Your task to perform on an android device: change the clock display to show seconds Image 0: 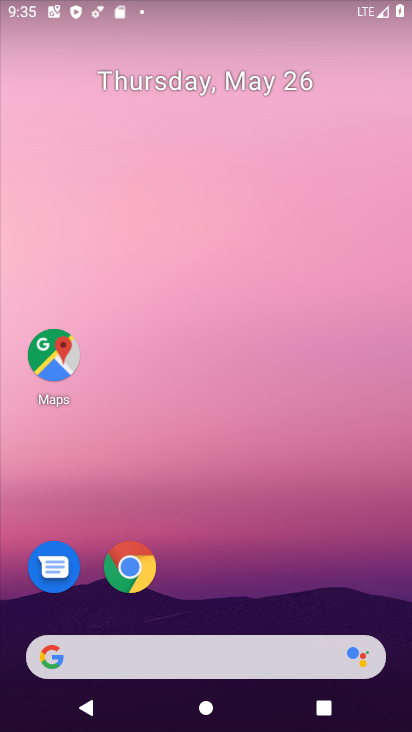
Step 0: drag from (266, 708) to (352, 1)
Your task to perform on an android device: change the clock display to show seconds Image 1: 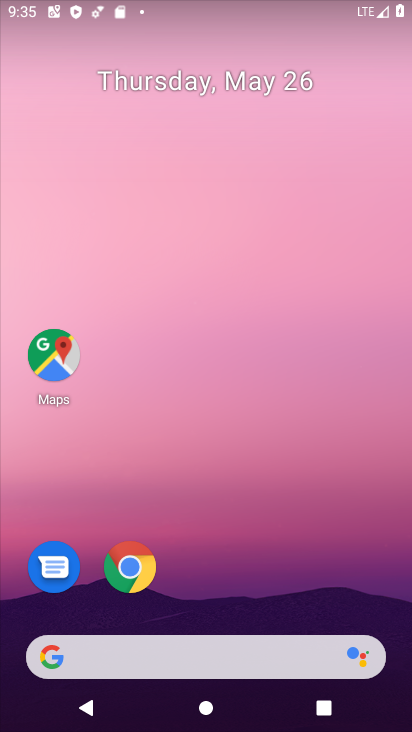
Step 1: drag from (278, 645) to (350, 17)
Your task to perform on an android device: change the clock display to show seconds Image 2: 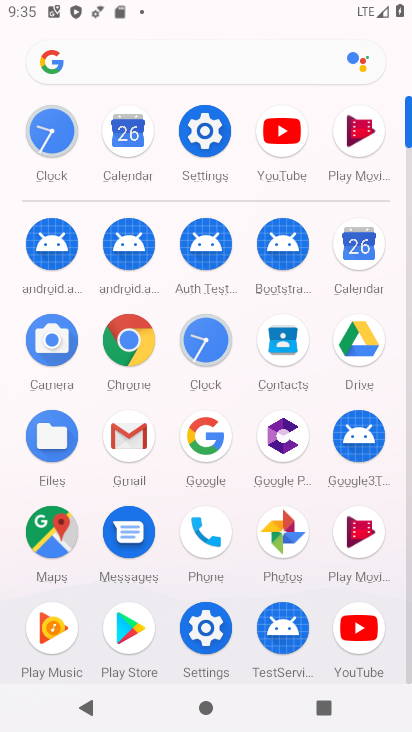
Step 2: click (57, 126)
Your task to perform on an android device: change the clock display to show seconds Image 3: 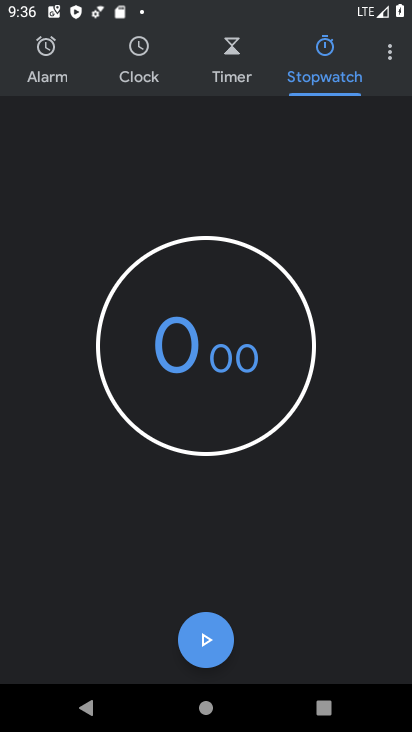
Step 3: click (385, 60)
Your task to perform on an android device: change the clock display to show seconds Image 4: 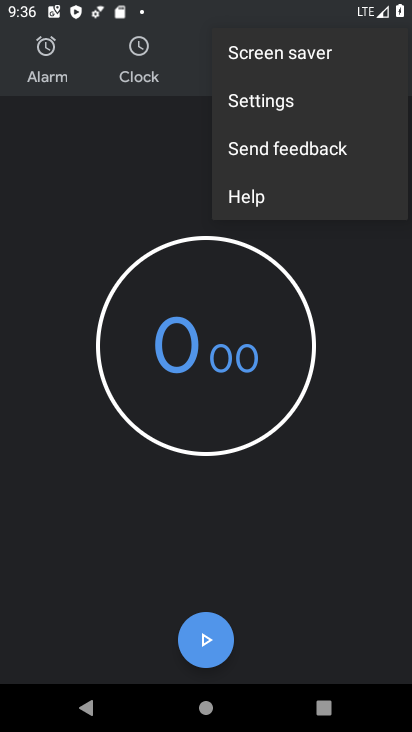
Step 4: click (287, 109)
Your task to perform on an android device: change the clock display to show seconds Image 5: 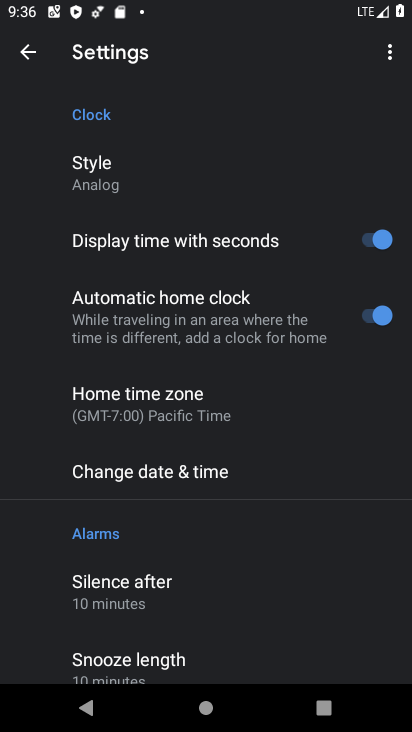
Step 5: task complete